Your task to perform on an android device: Find coffee shops on Maps Image 0: 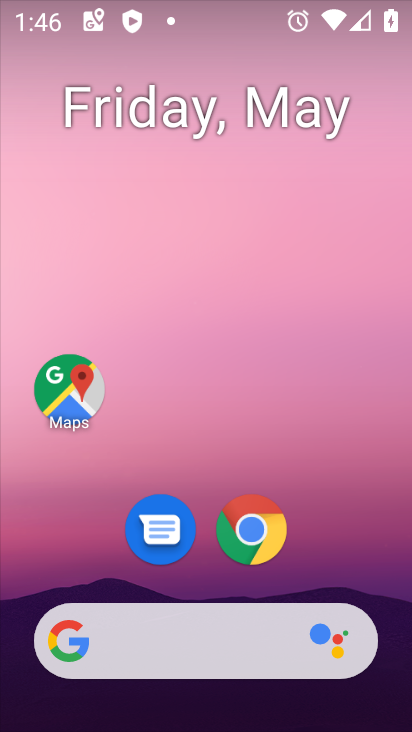
Step 0: click (60, 368)
Your task to perform on an android device: Find coffee shops on Maps Image 1: 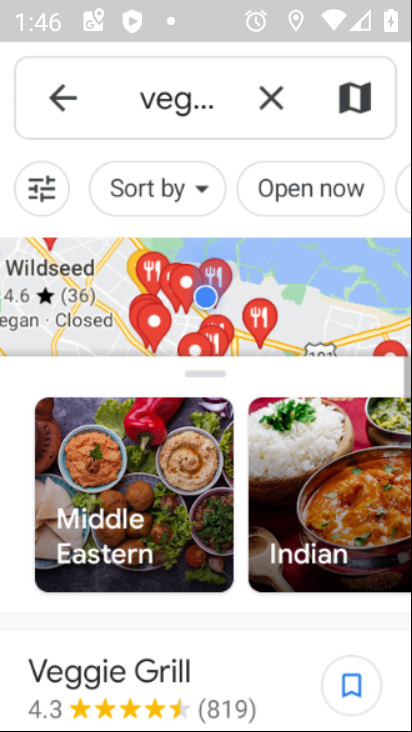
Step 1: click (272, 94)
Your task to perform on an android device: Find coffee shops on Maps Image 2: 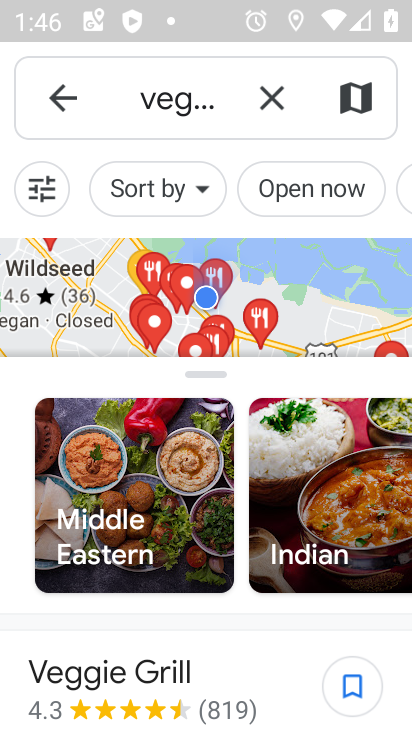
Step 2: click (269, 97)
Your task to perform on an android device: Find coffee shops on Maps Image 3: 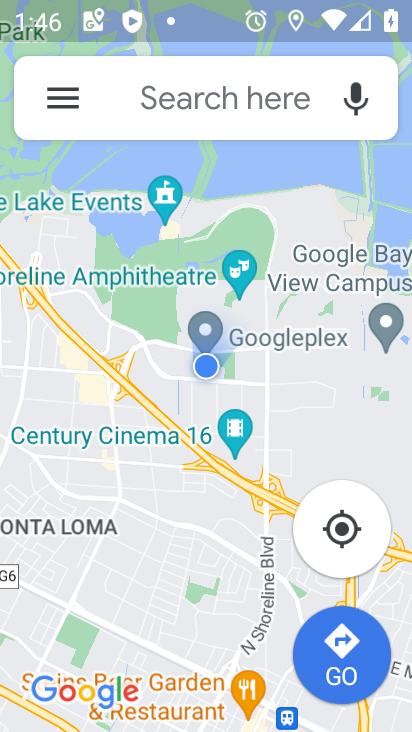
Step 3: click (156, 95)
Your task to perform on an android device: Find coffee shops on Maps Image 4: 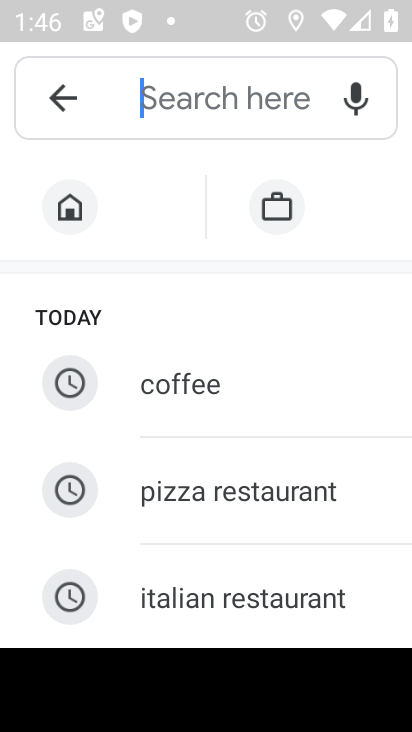
Step 4: type "coffee shops"
Your task to perform on an android device: Find coffee shops on Maps Image 5: 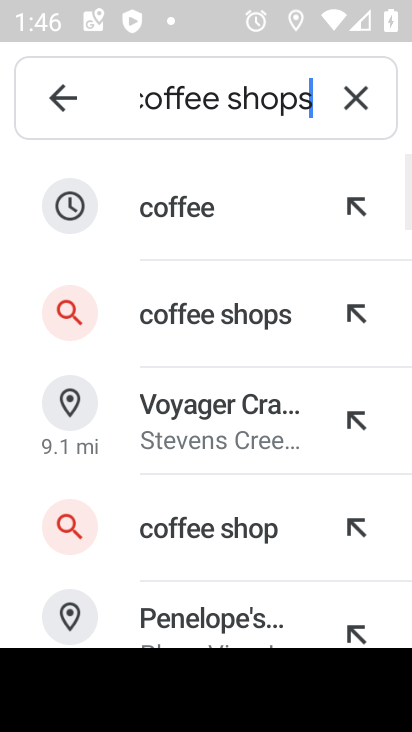
Step 5: click (213, 319)
Your task to perform on an android device: Find coffee shops on Maps Image 6: 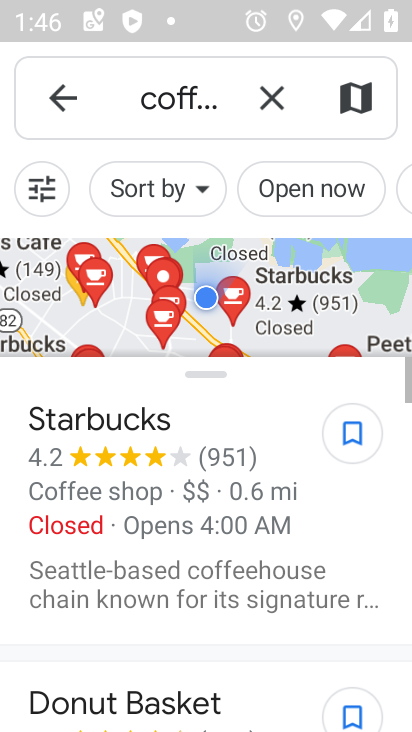
Step 6: task complete